Your task to perform on an android device: Go to privacy settings Image 0: 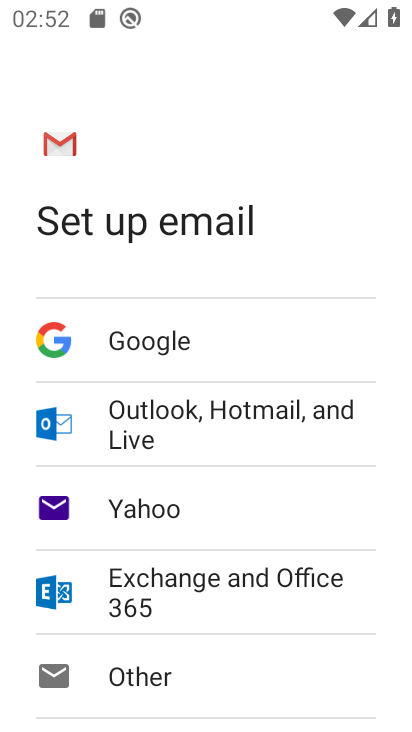
Step 0: press home button
Your task to perform on an android device: Go to privacy settings Image 1: 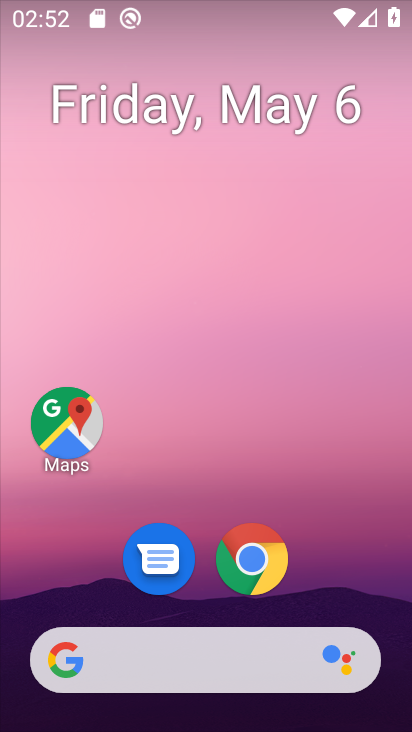
Step 1: drag from (312, 607) to (328, 37)
Your task to perform on an android device: Go to privacy settings Image 2: 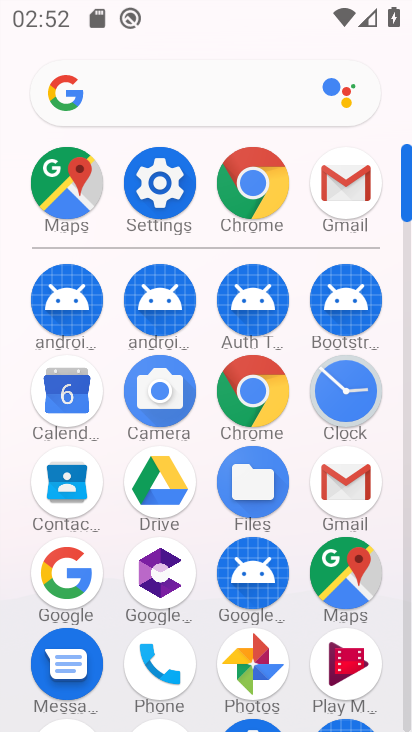
Step 2: click (173, 169)
Your task to perform on an android device: Go to privacy settings Image 3: 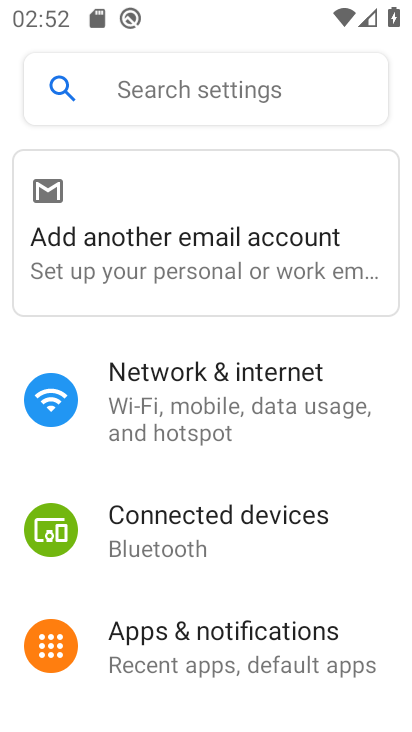
Step 3: drag from (265, 699) to (405, 144)
Your task to perform on an android device: Go to privacy settings Image 4: 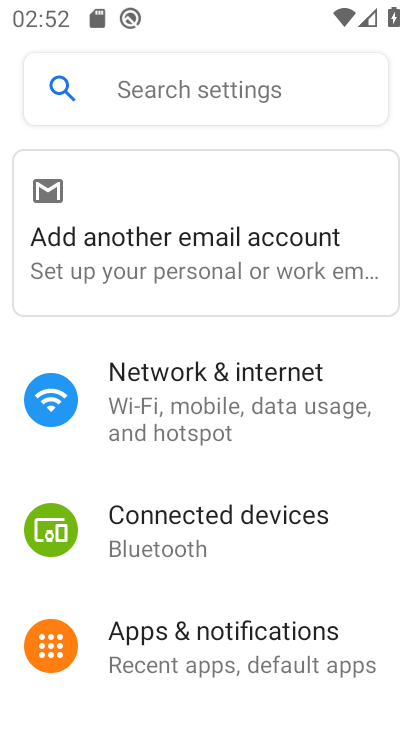
Step 4: drag from (232, 670) to (261, 81)
Your task to perform on an android device: Go to privacy settings Image 5: 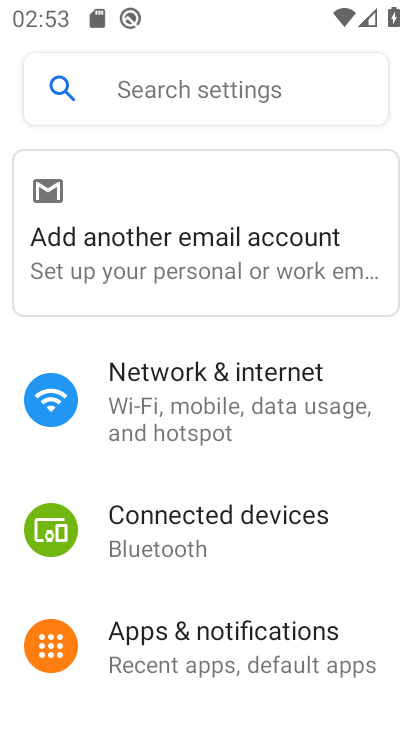
Step 5: drag from (103, 661) to (178, 135)
Your task to perform on an android device: Go to privacy settings Image 6: 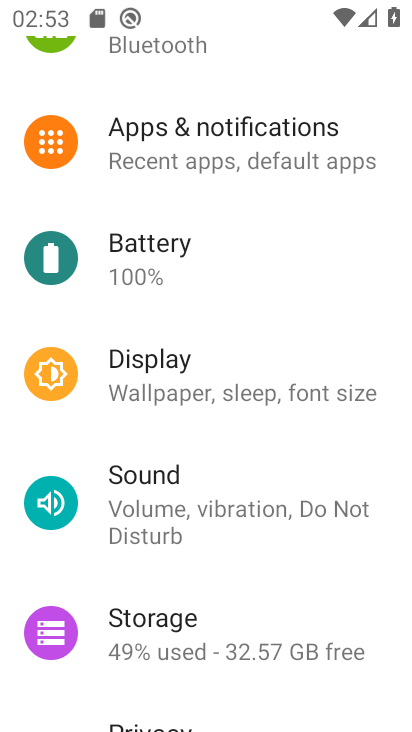
Step 6: drag from (162, 568) to (207, 165)
Your task to perform on an android device: Go to privacy settings Image 7: 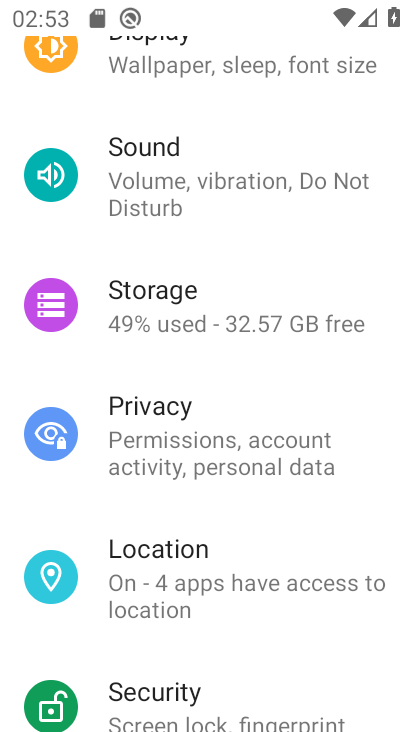
Step 7: click (162, 418)
Your task to perform on an android device: Go to privacy settings Image 8: 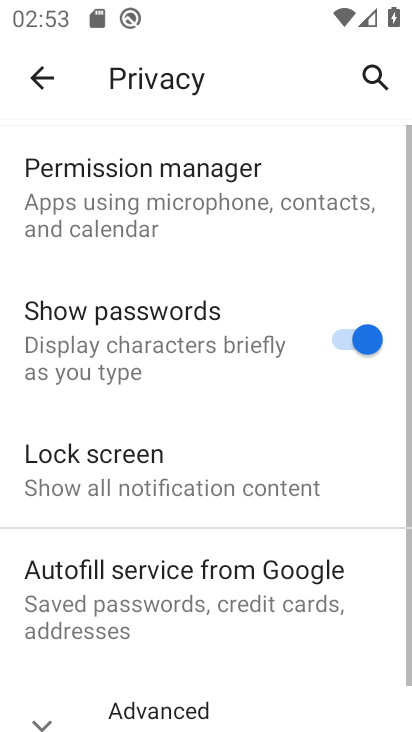
Step 8: task complete